Your task to perform on an android device: toggle javascript in the chrome app Image 0: 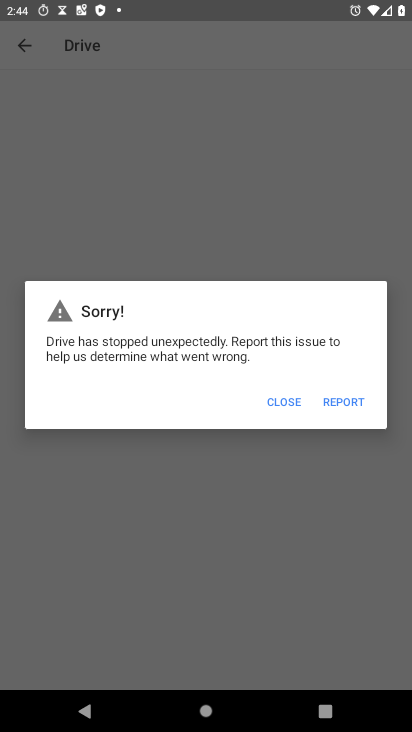
Step 0: press home button
Your task to perform on an android device: toggle javascript in the chrome app Image 1: 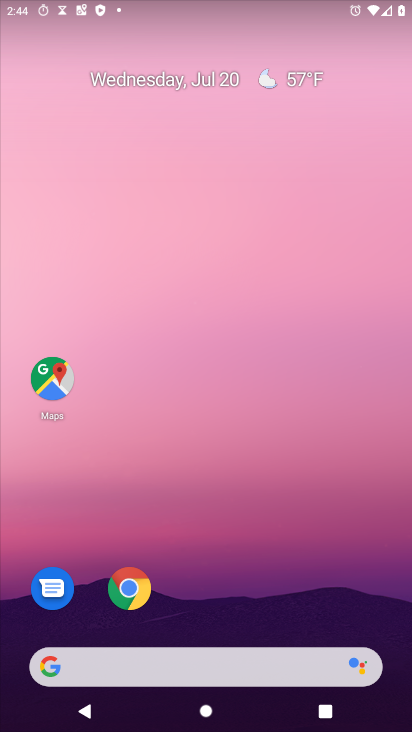
Step 1: drag from (181, 663) to (183, 64)
Your task to perform on an android device: toggle javascript in the chrome app Image 2: 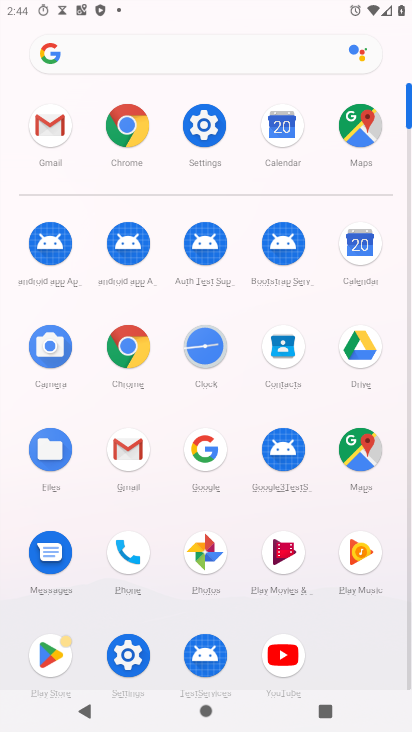
Step 2: click (140, 354)
Your task to perform on an android device: toggle javascript in the chrome app Image 3: 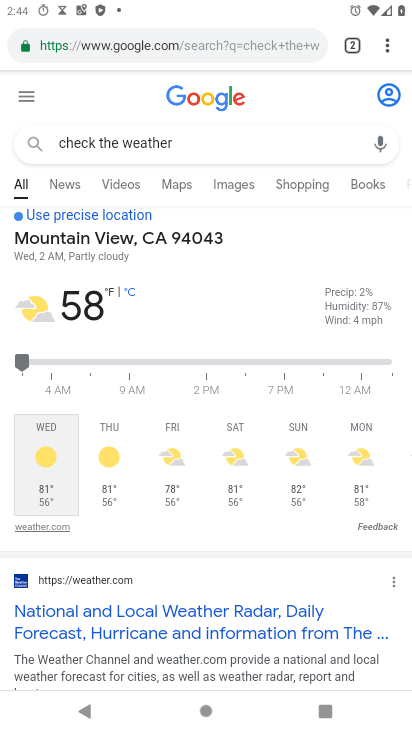
Step 3: click (383, 52)
Your task to perform on an android device: toggle javascript in the chrome app Image 4: 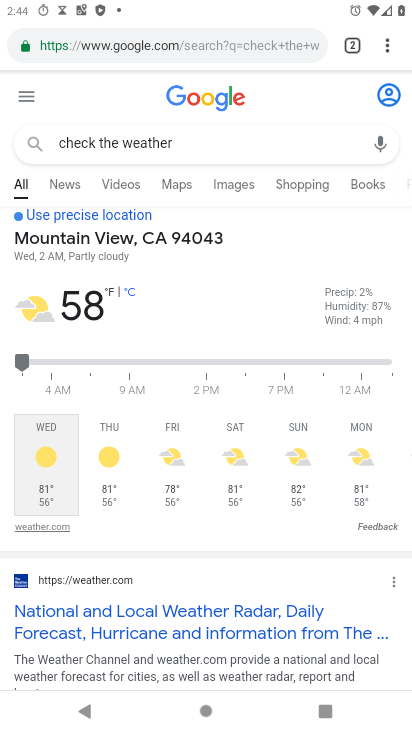
Step 4: drag from (389, 42) to (265, 495)
Your task to perform on an android device: toggle javascript in the chrome app Image 5: 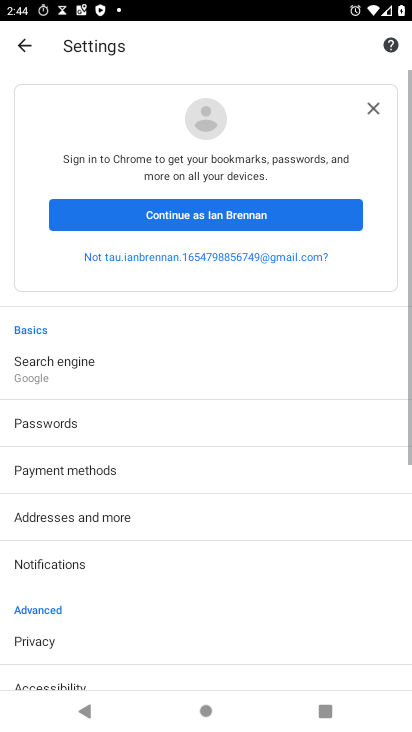
Step 5: drag from (131, 528) to (131, 167)
Your task to perform on an android device: toggle javascript in the chrome app Image 6: 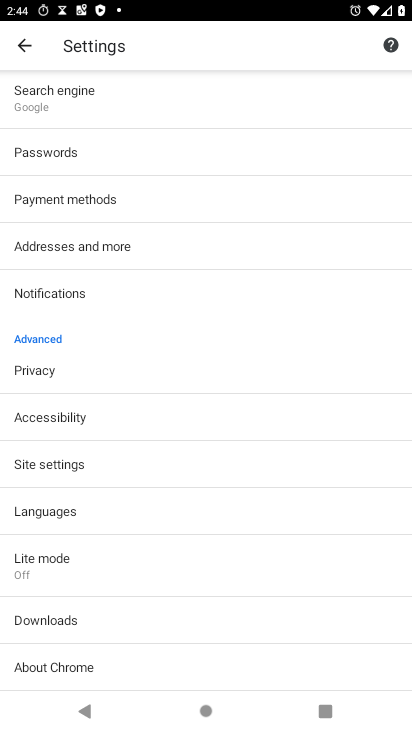
Step 6: click (92, 465)
Your task to perform on an android device: toggle javascript in the chrome app Image 7: 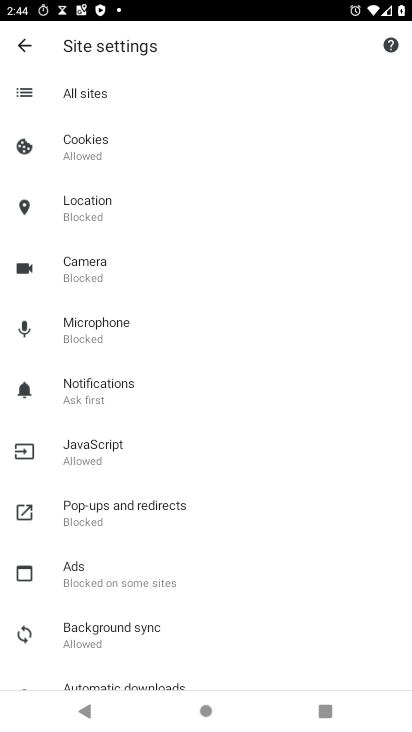
Step 7: click (123, 445)
Your task to perform on an android device: toggle javascript in the chrome app Image 8: 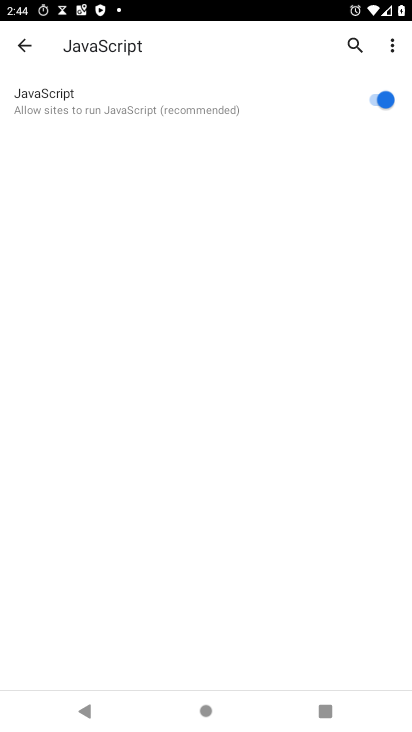
Step 8: click (378, 96)
Your task to perform on an android device: toggle javascript in the chrome app Image 9: 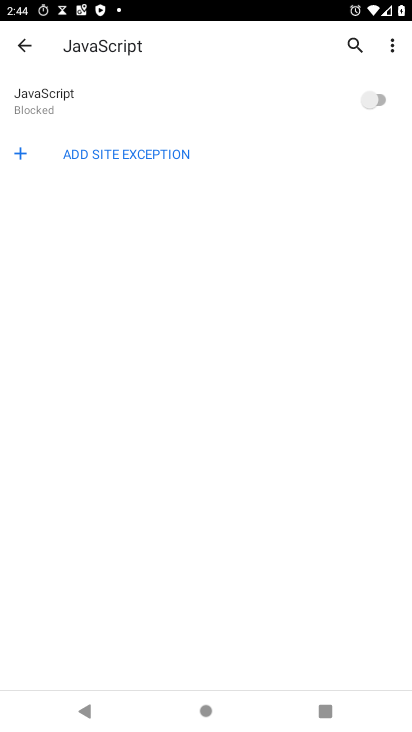
Step 9: task complete